Your task to perform on an android device: Go to Wikipedia Image 0: 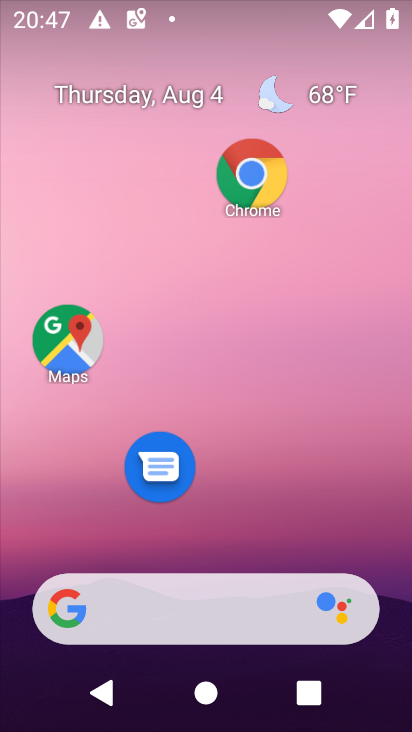
Step 0: press home button
Your task to perform on an android device: Go to Wikipedia Image 1: 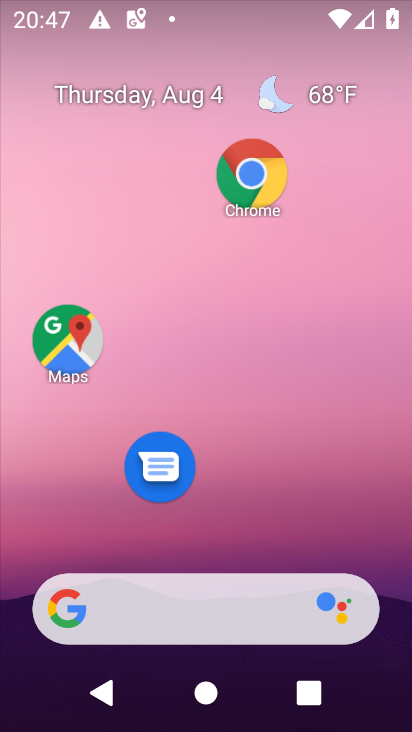
Step 1: click (162, 64)
Your task to perform on an android device: Go to Wikipedia Image 2: 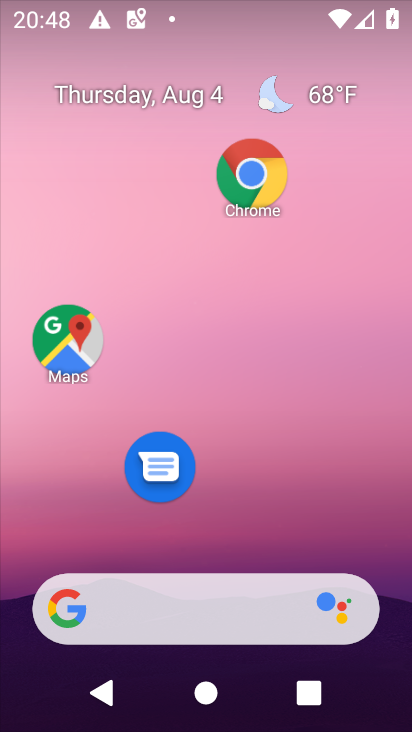
Step 2: drag from (292, 542) to (204, 8)
Your task to perform on an android device: Go to Wikipedia Image 3: 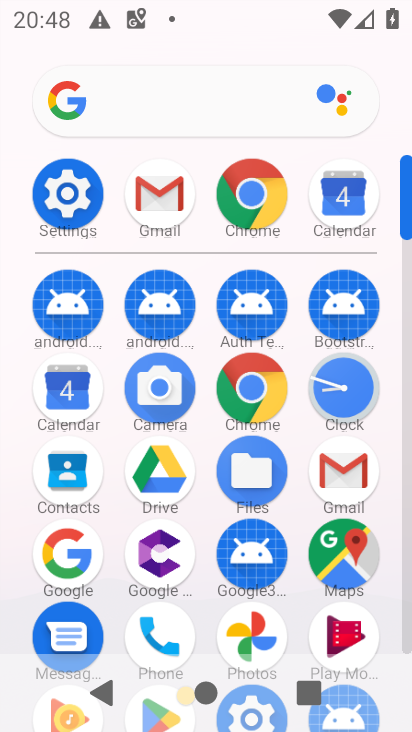
Step 3: click (262, 198)
Your task to perform on an android device: Go to Wikipedia Image 4: 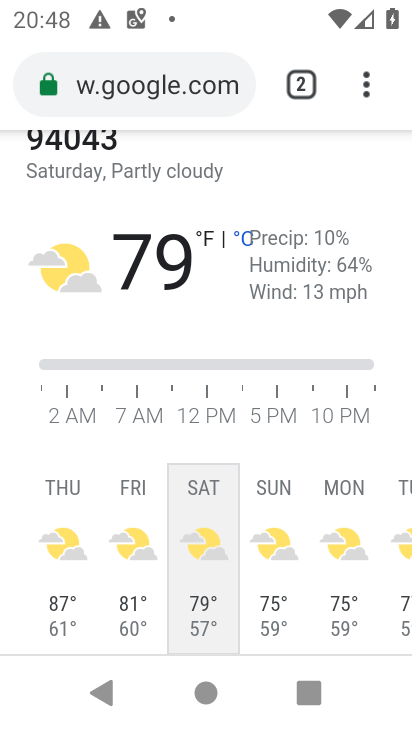
Step 4: click (202, 98)
Your task to perform on an android device: Go to Wikipedia Image 5: 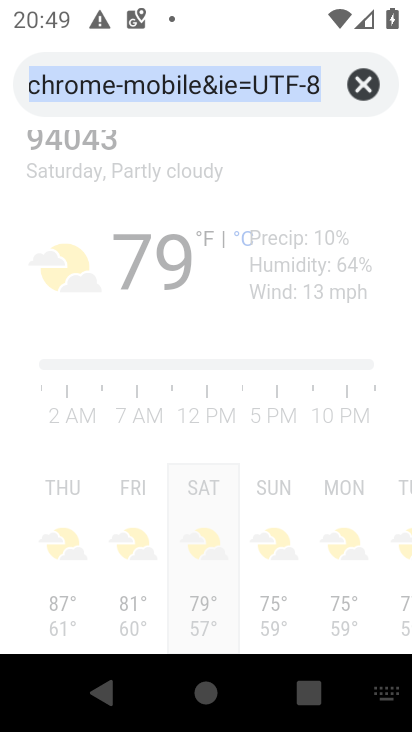
Step 5: type "Wikipedia"
Your task to perform on an android device: Go to Wikipedia Image 6: 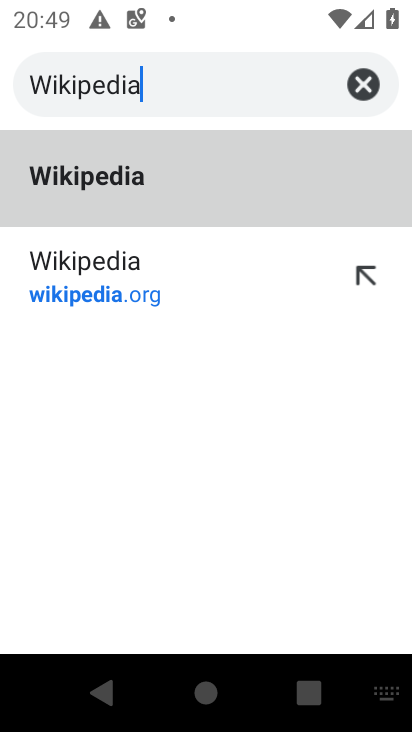
Step 6: type ""
Your task to perform on an android device: Go to Wikipedia Image 7: 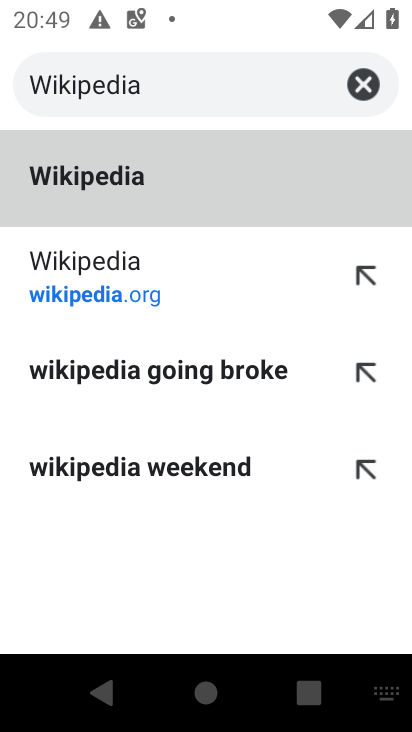
Step 7: click (56, 266)
Your task to perform on an android device: Go to Wikipedia Image 8: 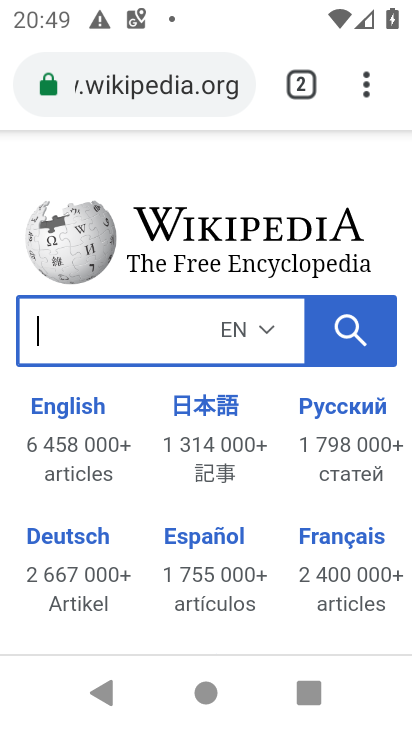
Step 8: task complete